Your task to perform on an android device: What is the news today? Image 0: 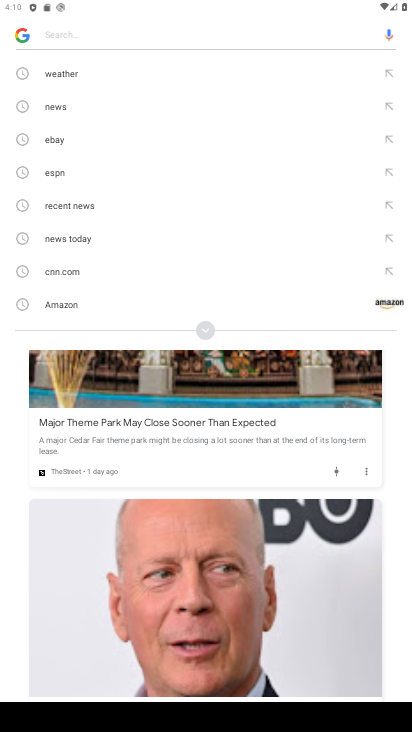
Step 0: click (157, 30)
Your task to perform on an android device: What is the news today? Image 1: 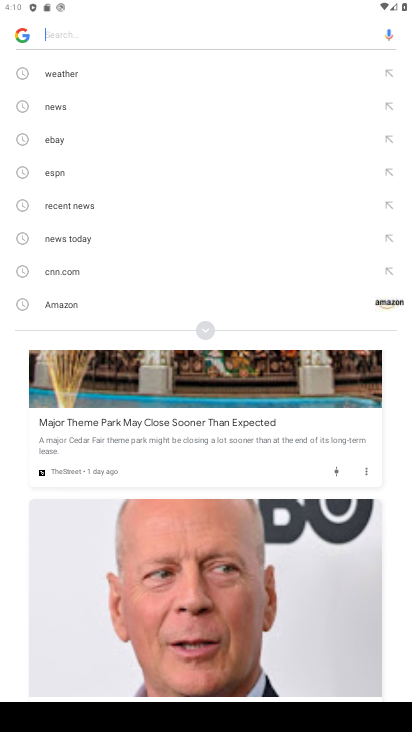
Step 1: type "news today"
Your task to perform on an android device: What is the news today? Image 2: 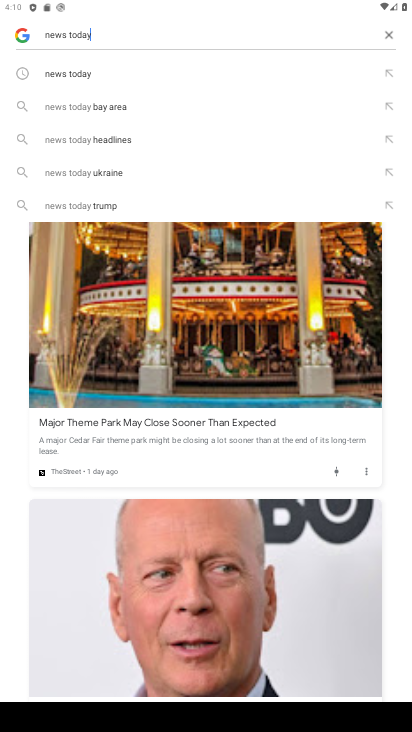
Step 2: click (95, 71)
Your task to perform on an android device: What is the news today? Image 3: 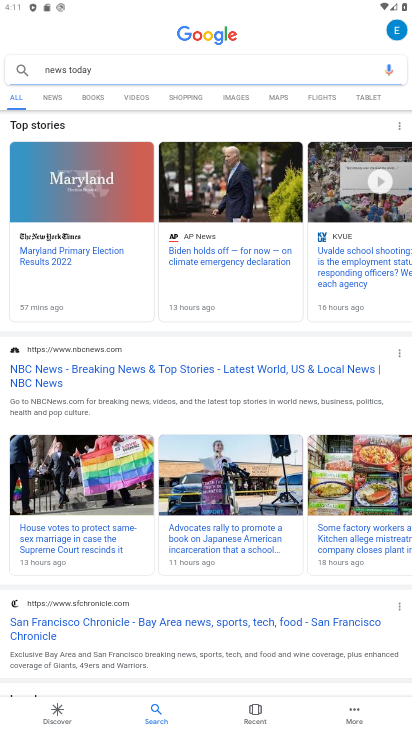
Step 3: task complete